Your task to perform on an android device: turn on notifications settings in the gmail app Image 0: 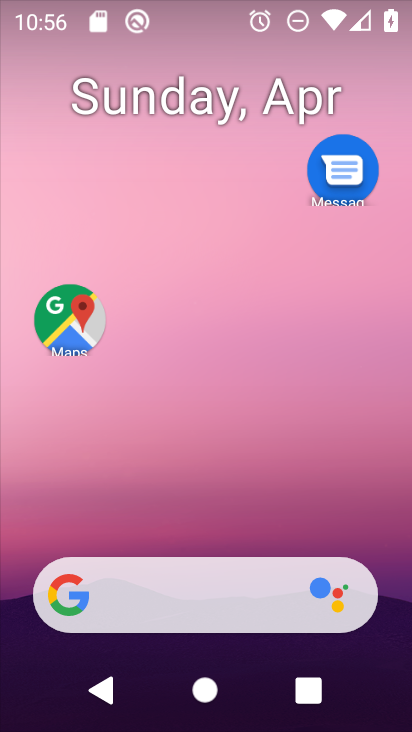
Step 0: click (212, 90)
Your task to perform on an android device: turn on notifications settings in the gmail app Image 1: 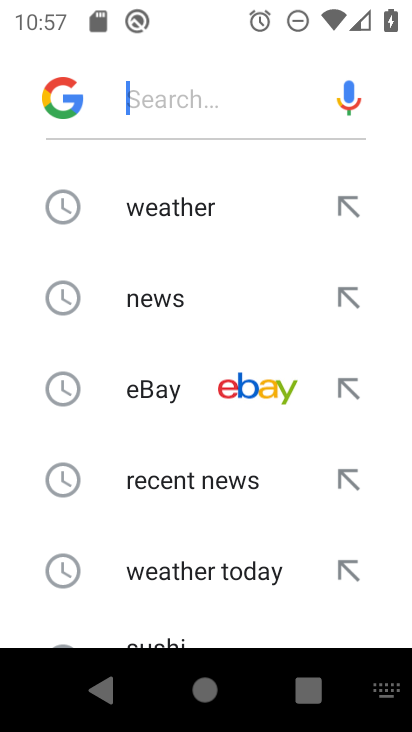
Step 1: drag from (189, 519) to (241, 152)
Your task to perform on an android device: turn on notifications settings in the gmail app Image 2: 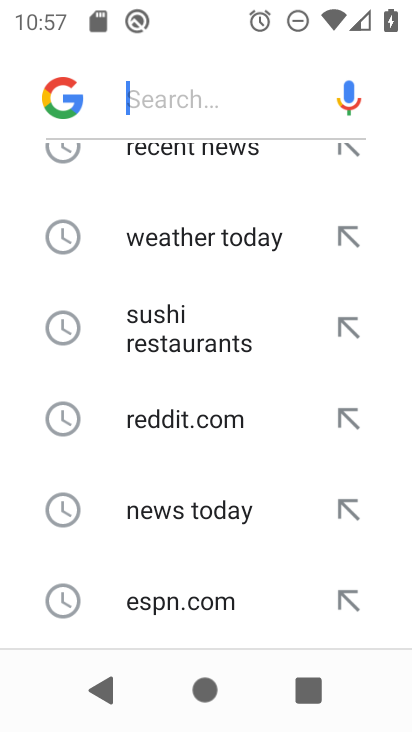
Step 2: press home button
Your task to perform on an android device: turn on notifications settings in the gmail app Image 3: 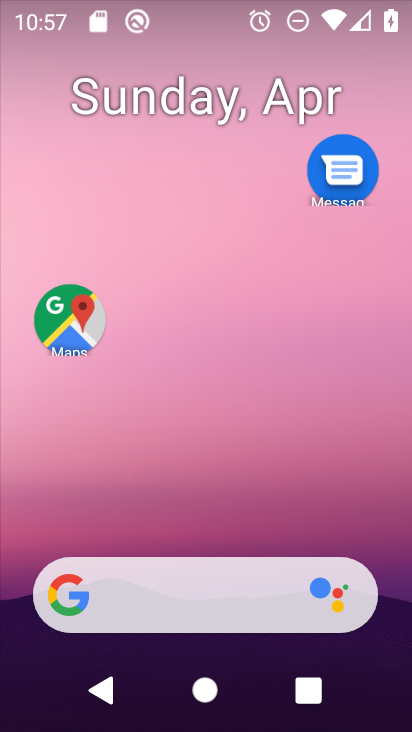
Step 3: drag from (190, 513) to (185, 82)
Your task to perform on an android device: turn on notifications settings in the gmail app Image 4: 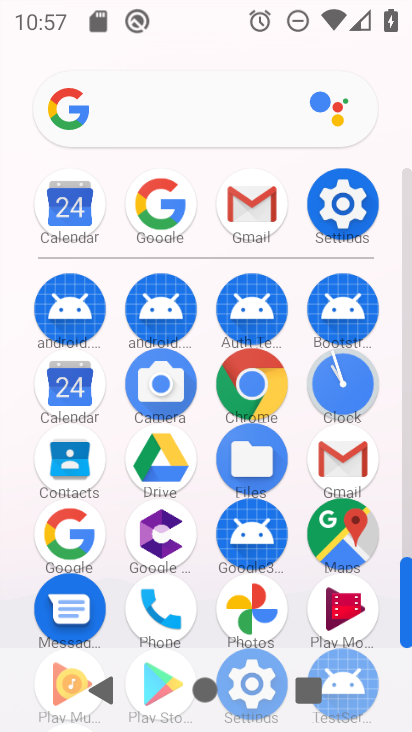
Step 4: click (337, 468)
Your task to perform on an android device: turn on notifications settings in the gmail app Image 5: 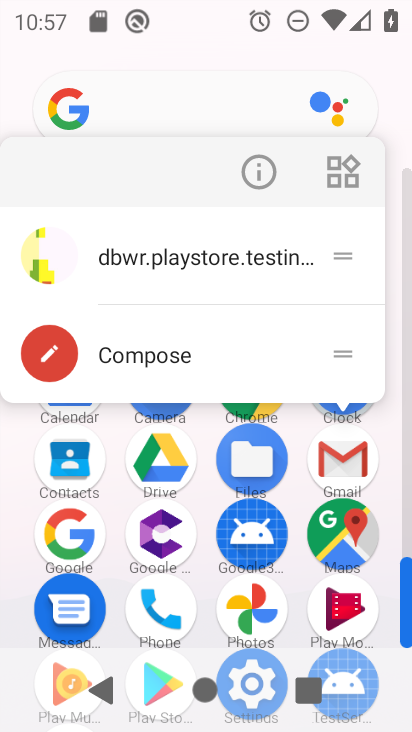
Step 5: click (245, 178)
Your task to perform on an android device: turn on notifications settings in the gmail app Image 6: 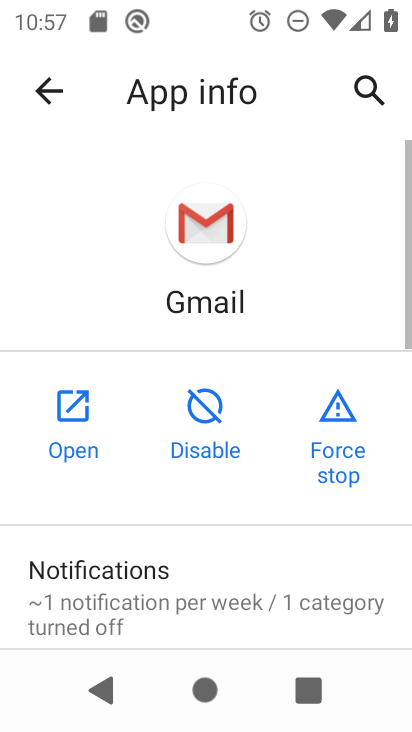
Step 6: click (71, 430)
Your task to perform on an android device: turn on notifications settings in the gmail app Image 7: 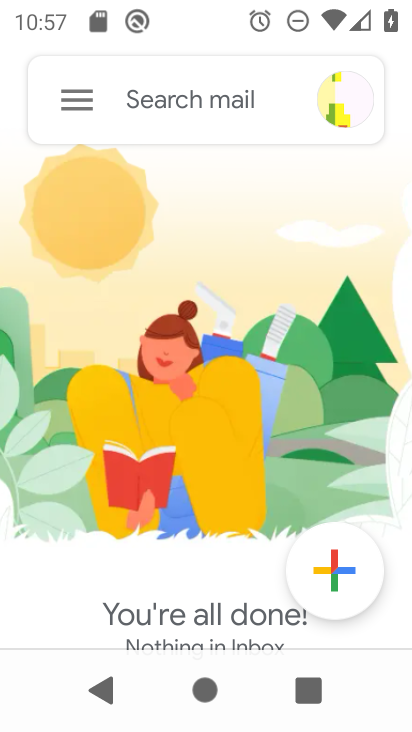
Step 7: click (58, 115)
Your task to perform on an android device: turn on notifications settings in the gmail app Image 8: 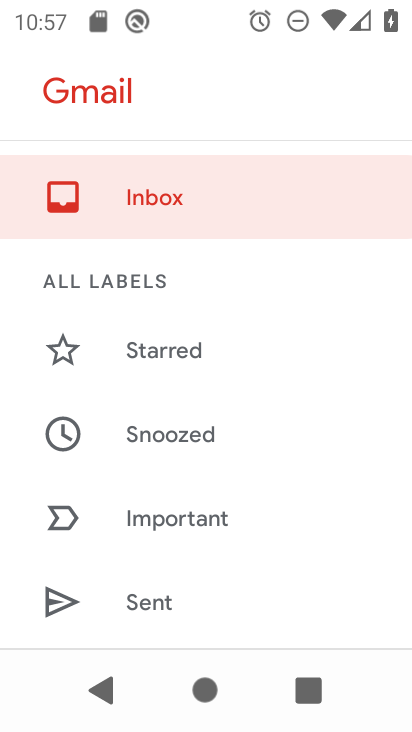
Step 8: drag from (220, 556) to (246, 158)
Your task to perform on an android device: turn on notifications settings in the gmail app Image 9: 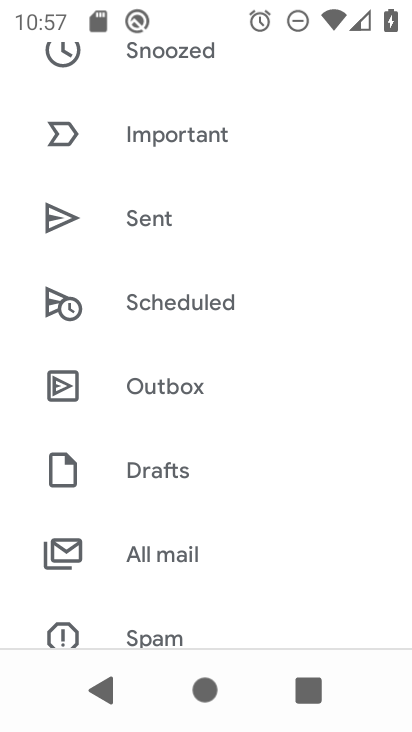
Step 9: drag from (150, 558) to (199, 113)
Your task to perform on an android device: turn on notifications settings in the gmail app Image 10: 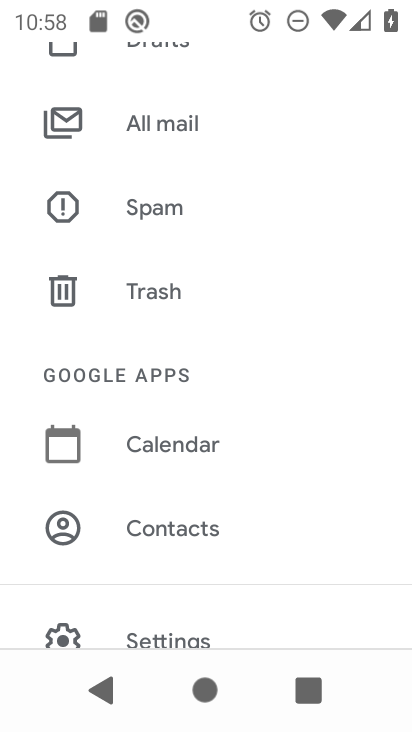
Step 10: drag from (192, 598) to (215, 78)
Your task to perform on an android device: turn on notifications settings in the gmail app Image 11: 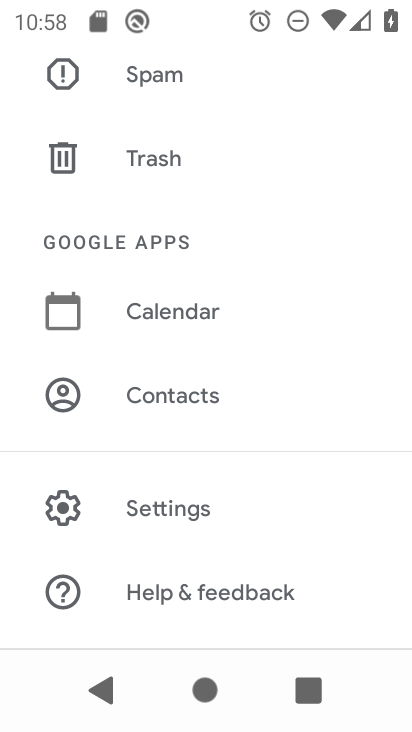
Step 11: click (201, 515)
Your task to perform on an android device: turn on notifications settings in the gmail app Image 12: 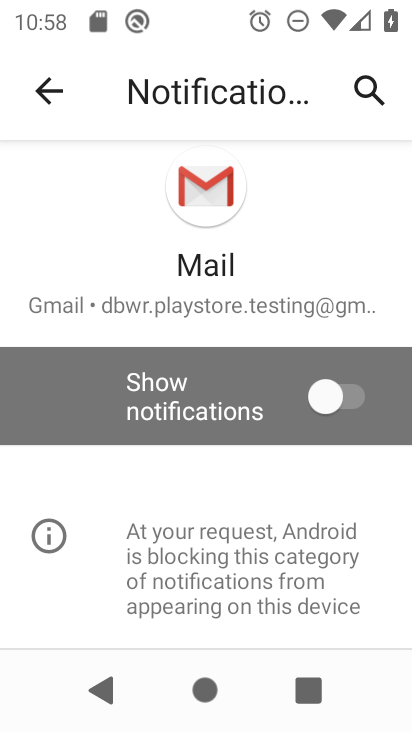
Step 12: click (289, 405)
Your task to perform on an android device: turn on notifications settings in the gmail app Image 13: 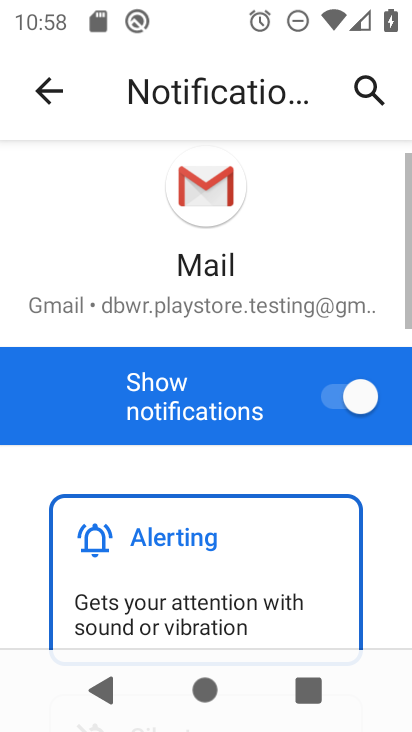
Step 13: task complete